Your task to perform on an android device: turn off location Image 0: 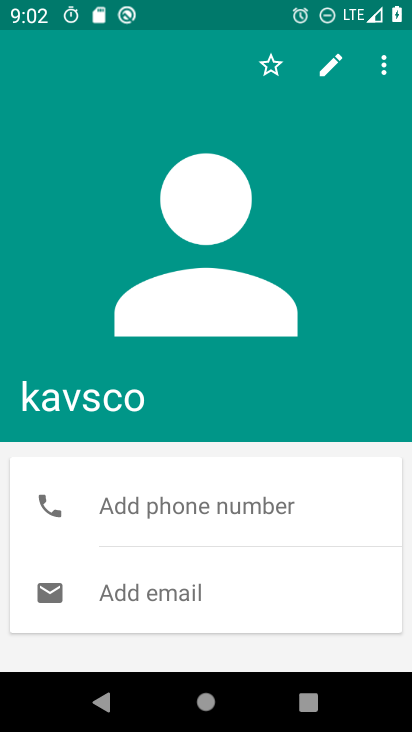
Step 0: press home button
Your task to perform on an android device: turn off location Image 1: 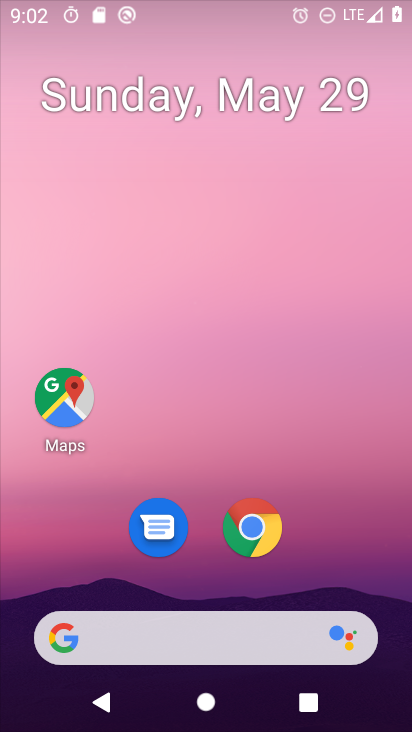
Step 1: drag from (404, 654) to (255, 44)
Your task to perform on an android device: turn off location Image 2: 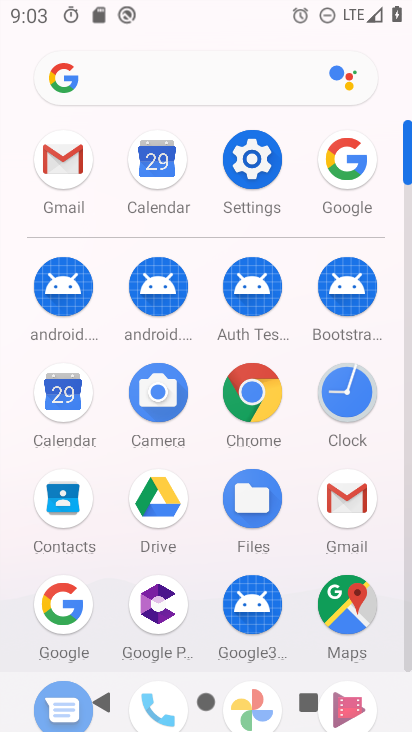
Step 2: click (249, 174)
Your task to perform on an android device: turn off location Image 3: 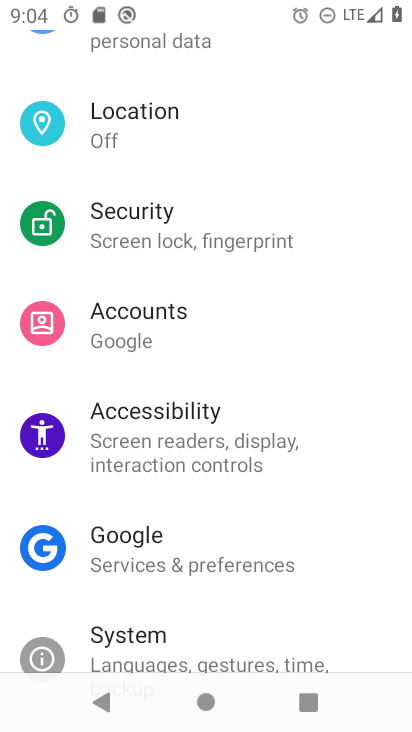
Step 3: click (172, 131)
Your task to perform on an android device: turn off location Image 4: 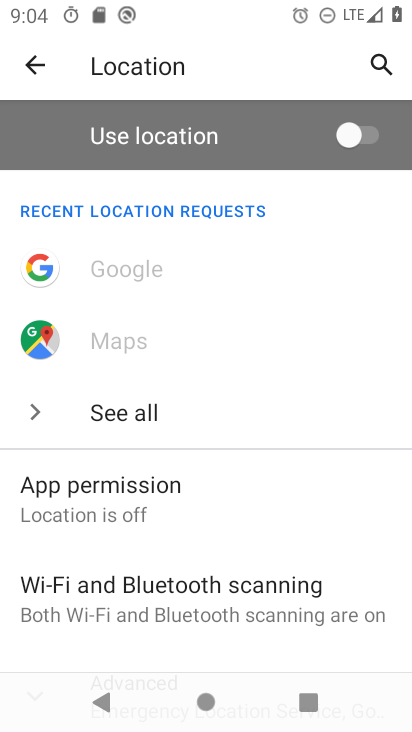
Step 4: task complete